Your task to perform on an android device: turn off translation in the chrome app Image 0: 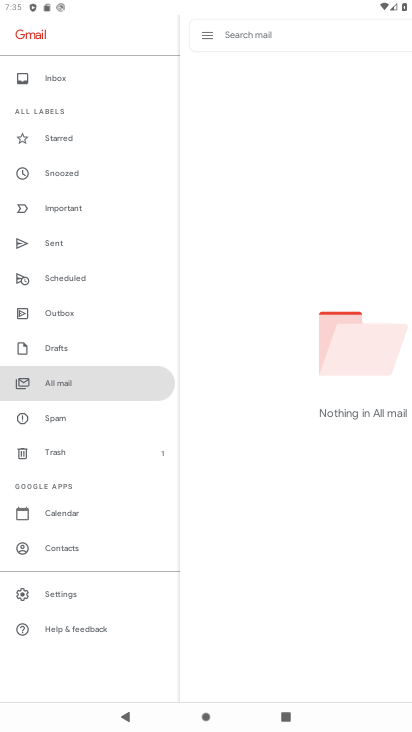
Step 0: press home button
Your task to perform on an android device: turn off translation in the chrome app Image 1: 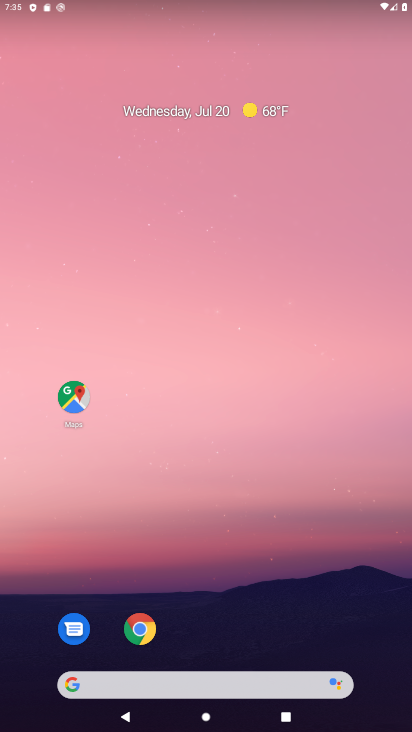
Step 1: drag from (338, 602) to (320, 37)
Your task to perform on an android device: turn off translation in the chrome app Image 2: 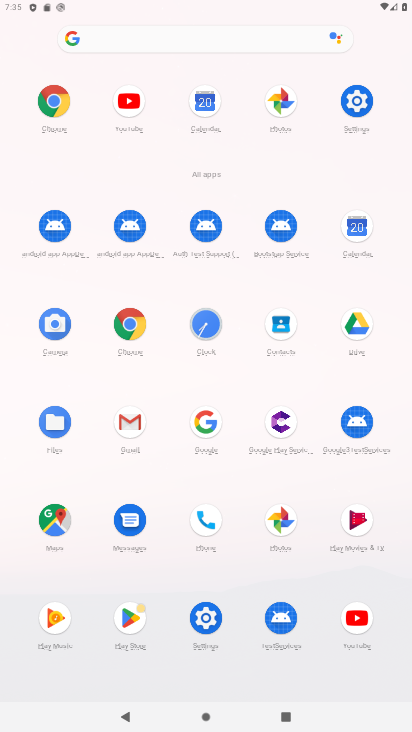
Step 2: click (135, 324)
Your task to perform on an android device: turn off translation in the chrome app Image 3: 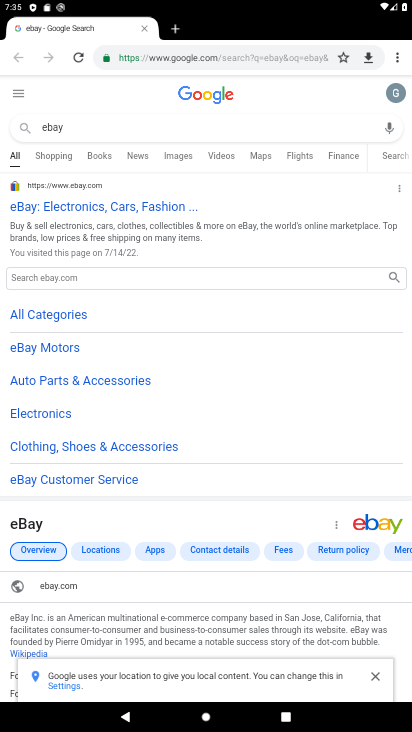
Step 3: click (396, 55)
Your task to perform on an android device: turn off translation in the chrome app Image 4: 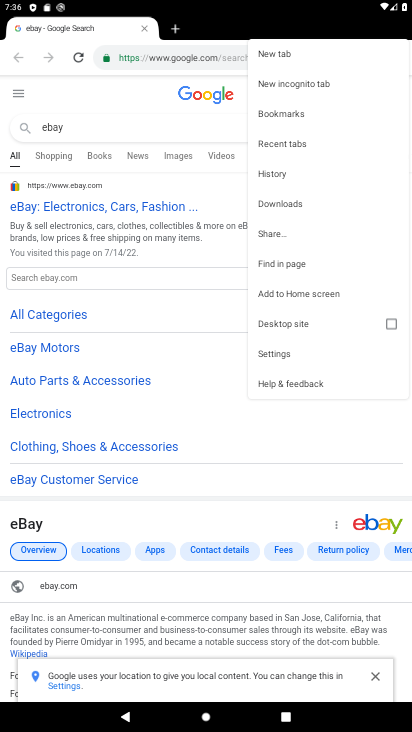
Step 4: click (282, 355)
Your task to perform on an android device: turn off translation in the chrome app Image 5: 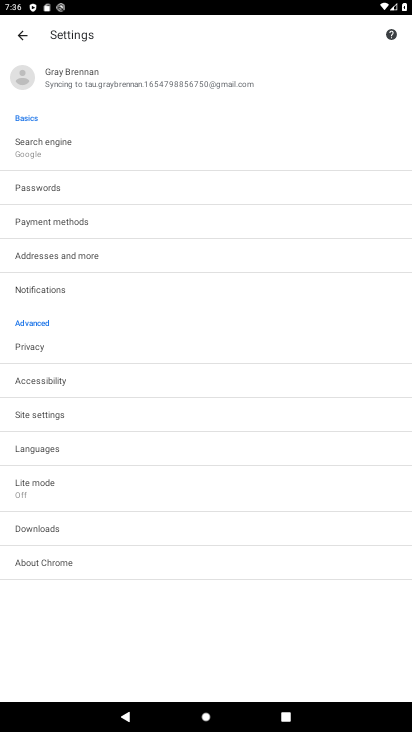
Step 5: click (164, 447)
Your task to perform on an android device: turn off translation in the chrome app Image 6: 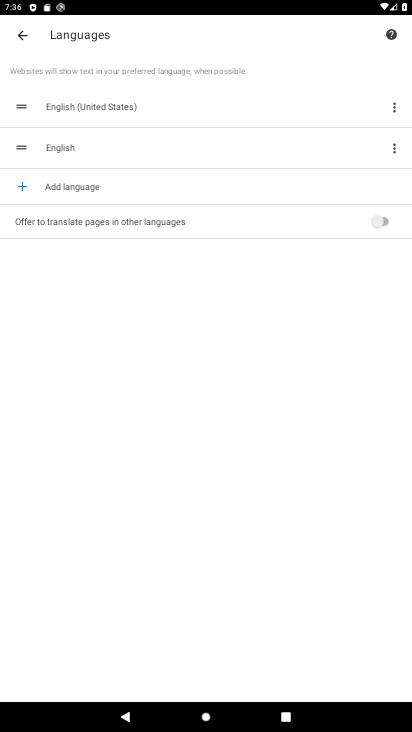
Step 6: task complete